Your task to perform on an android device: remove spam from my inbox in the gmail app Image 0: 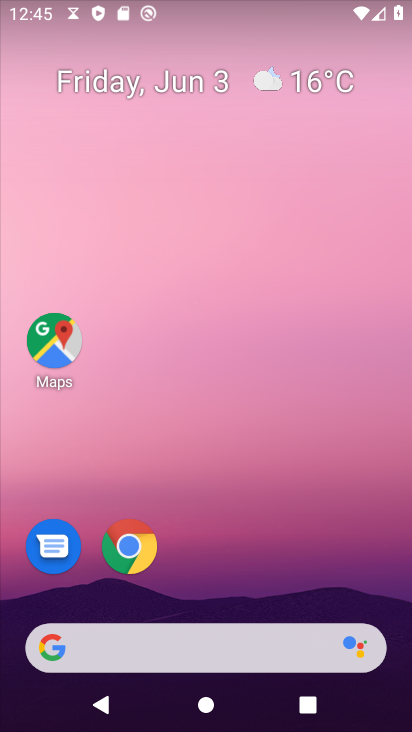
Step 0: drag from (210, 632) to (259, 93)
Your task to perform on an android device: remove spam from my inbox in the gmail app Image 1: 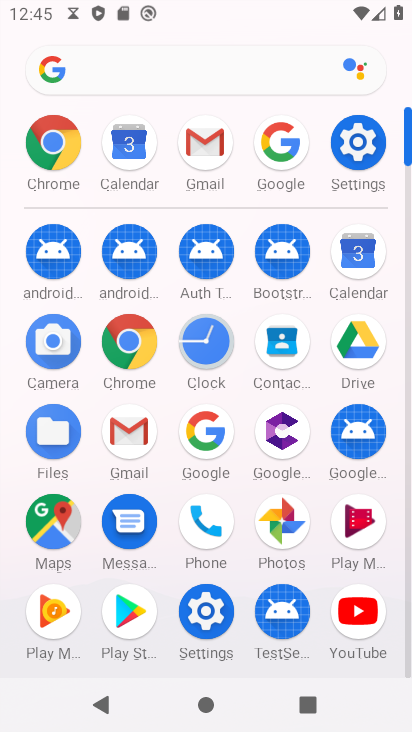
Step 1: click (191, 143)
Your task to perform on an android device: remove spam from my inbox in the gmail app Image 2: 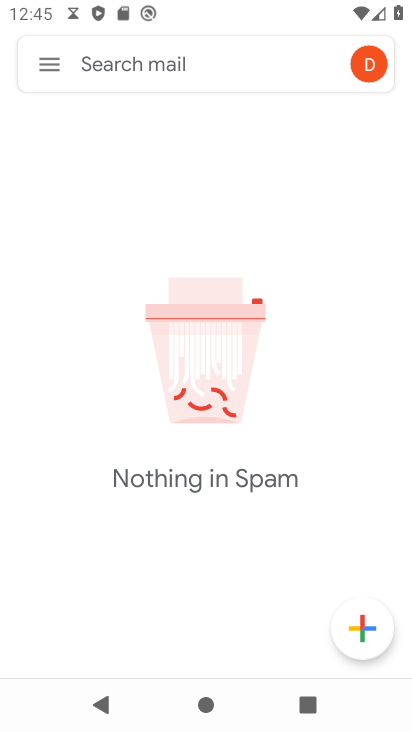
Step 2: task complete